Your task to perform on an android device: toggle improve location accuracy Image 0: 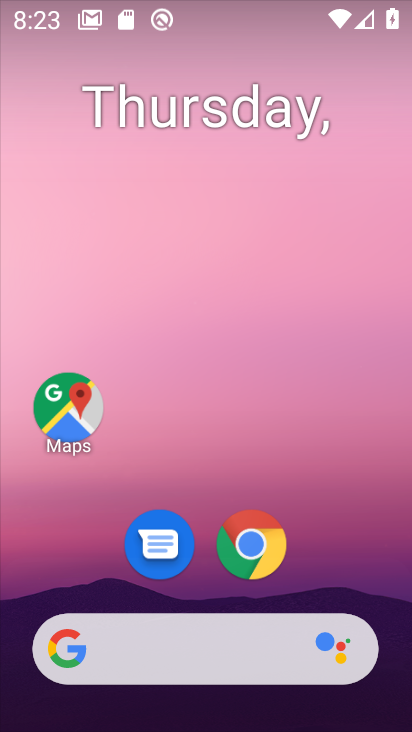
Step 0: drag from (311, 554) to (282, 22)
Your task to perform on an android device: toggle improve location accuracy Image 1: 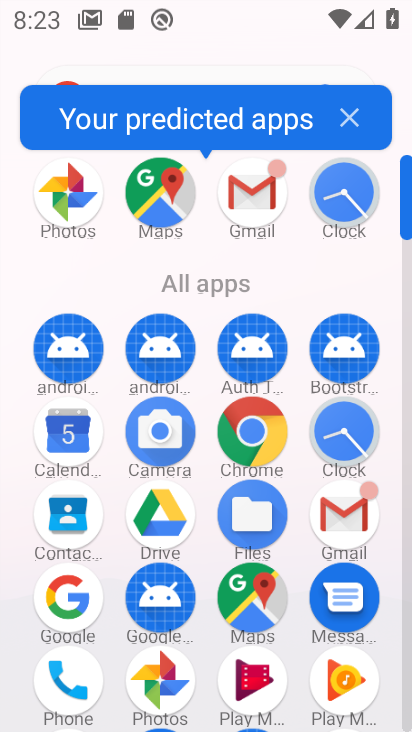
Step 1: drag from (14, 642) to (14, 299)
Your task to perform on an android device: toggle improve location accuracy Image 2: 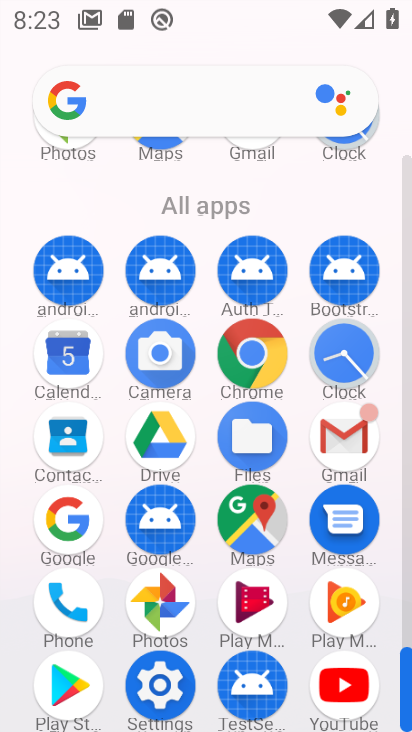
Step 2: click (157, 684)
Your task to perform on an android device: toggle improve location accuracy Image 3: 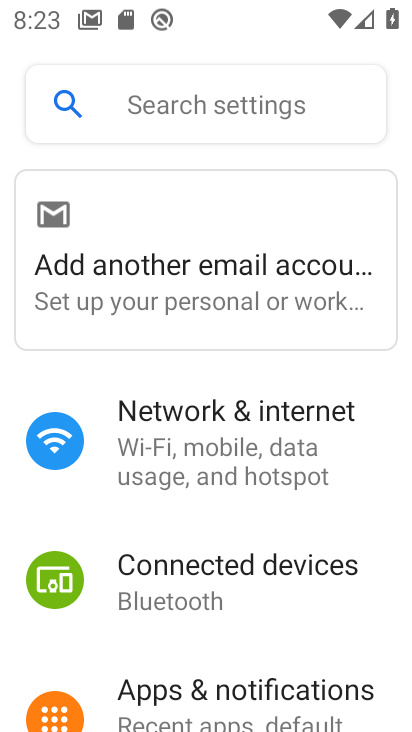
Step 3: drag from (369, 638) to (362, 227)
Your task to perform on an android device: toggle improve location accuracy Image 4: 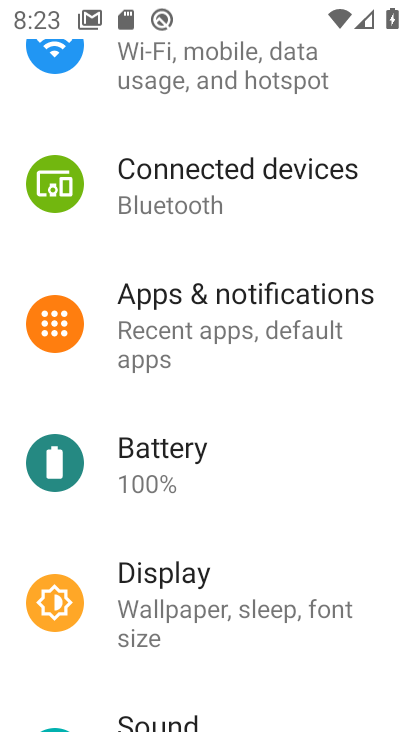
Step 4: drag from (332, 601) to (346, 190)
Your task to perform on an android device: toggle improve location accuracy Image 5: 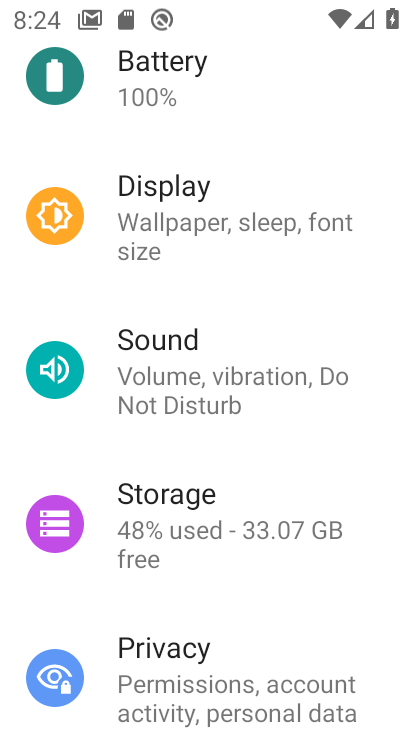
Step 5: drag from (285, 583) to (299, 163)
Your task to perform on an android device: toggle improve location accuracy Image 6: 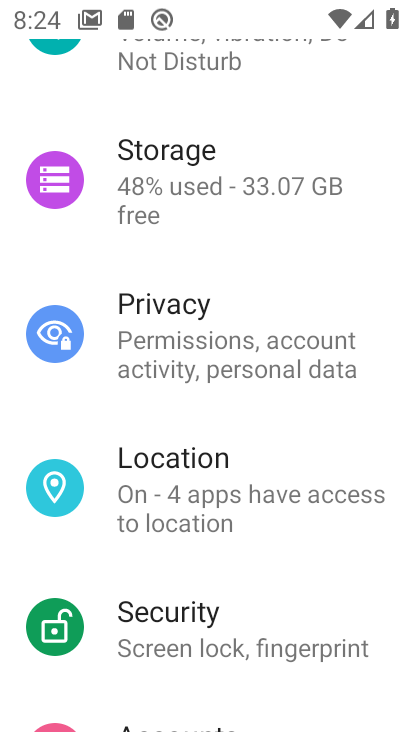
Step 6: click (242, 466)
Your task to perform on an android device: toggle improve location accuracy Image 7: 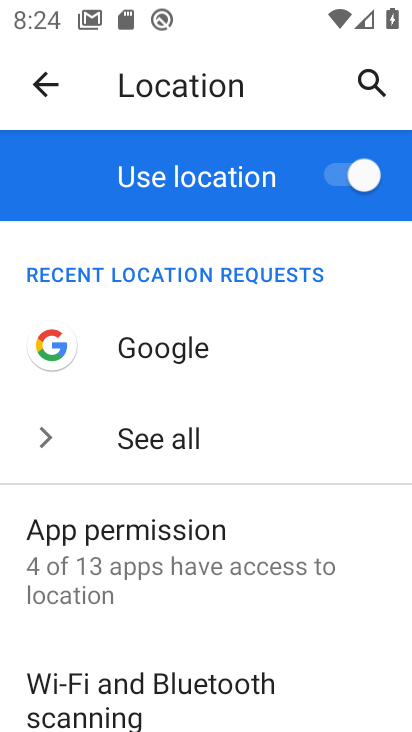
Step 7: drag from (279, 620) to (287, 191)
Your task to perform on an android device: toggle improve location accuracy Image 8: 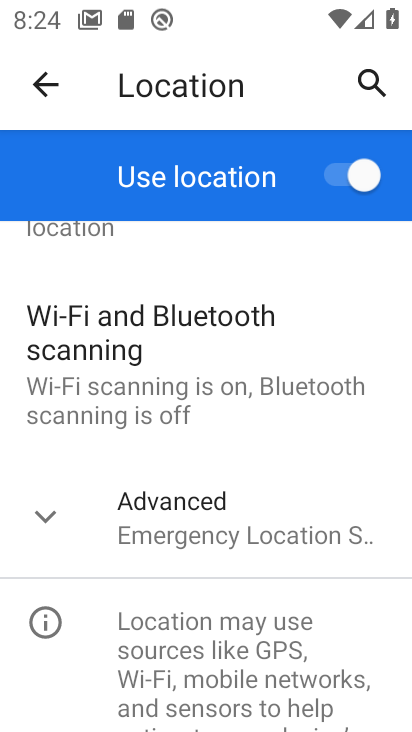
Step 8: click (219, 520)
Your task to perform on an android device: toggle improve location accuracy Image 9: 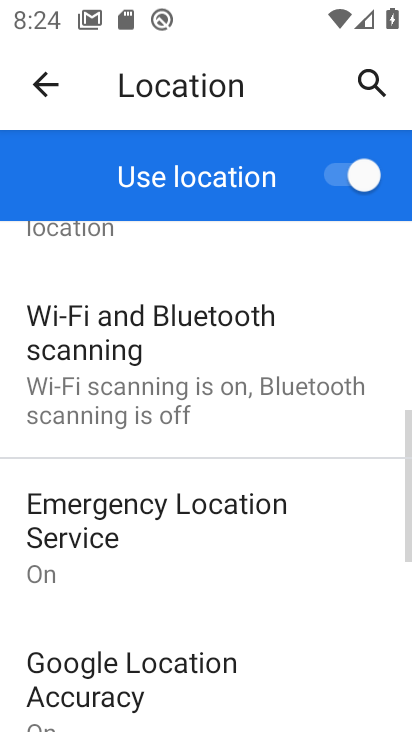
Step 9: drag from (276, 671) to (291, 247)
Your task to perform on an android device: toggle improve location accuracy Image 10: 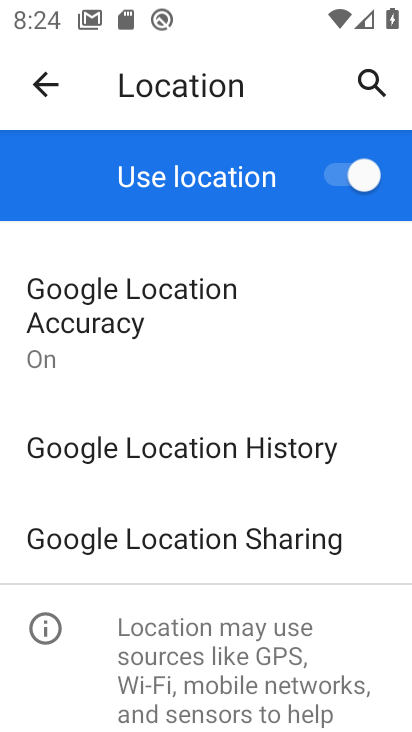
Step 10: click (194, 324)
Your task to perform on an android device: toggle improve location accuracy Image 11: 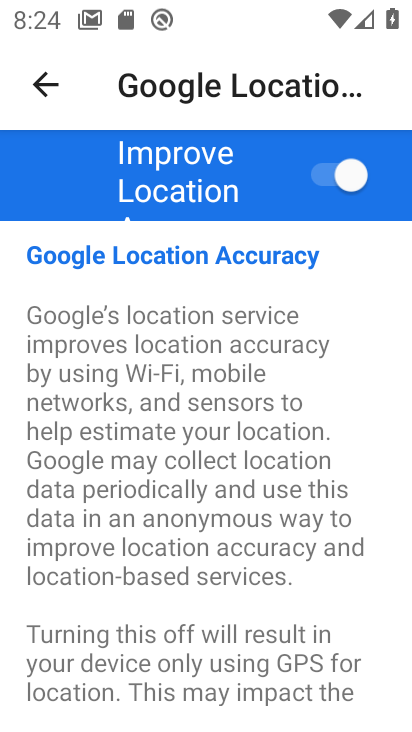
Step 11: click (332, 180)
Your task to perform on an android device: toggle improve location accuracy Image 12: 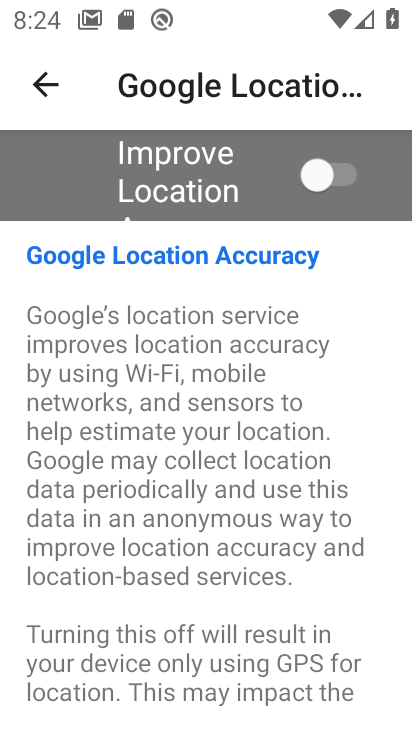
Step 12: task complete